Your task to perform on an android device: turn on javascript in the chrome app Image 0: 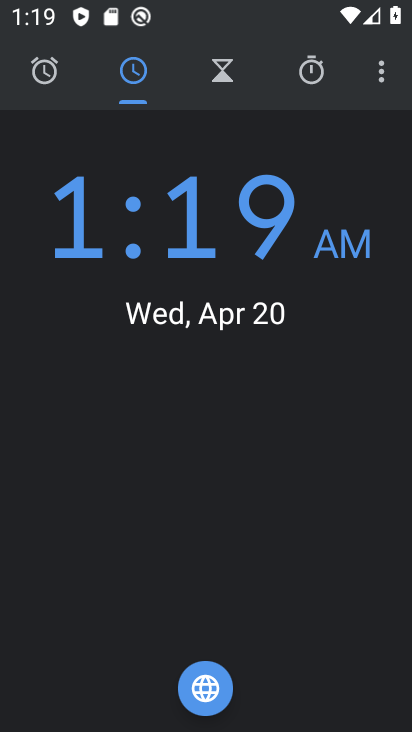
Step 0: press home button
Your task to perform on an android device: turn on javascript in the chrome app Image 1: 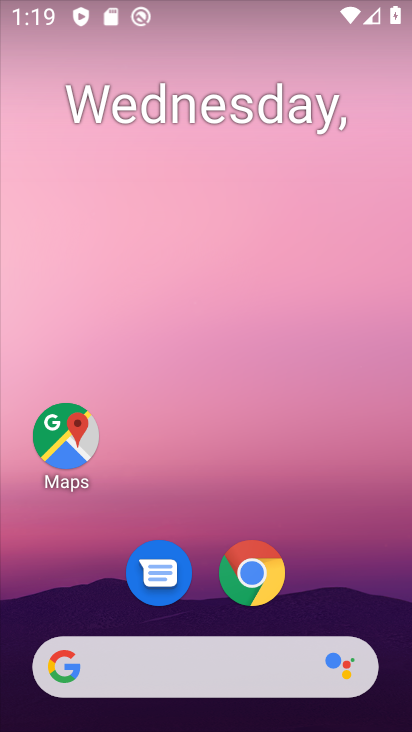
Step 1: drag from (210, 498) to (227, 119)
Your task to perform on an android device: turn on javascript in the chrome app Image 2: 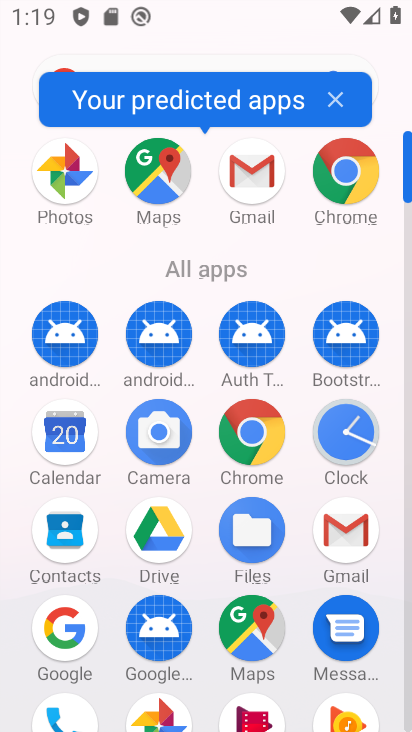
Step 2: click (348, 176)
Your task to perform on an android device: turn on javascript in the chrome app Image 3: 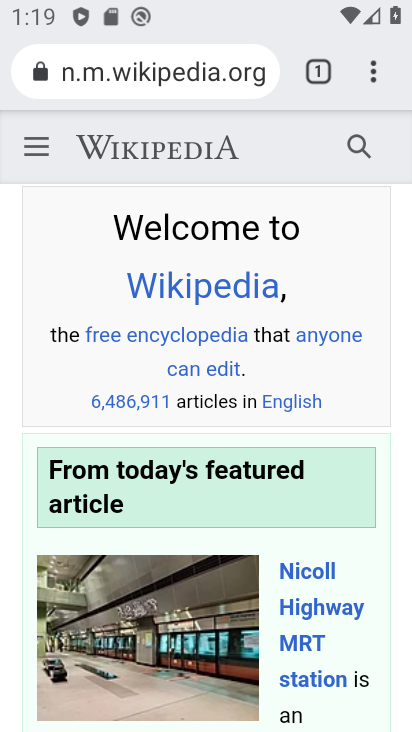
Step 3: click (366, 66)
Your task to perform on an android device: turn on javascript in the chrome app Image 4: 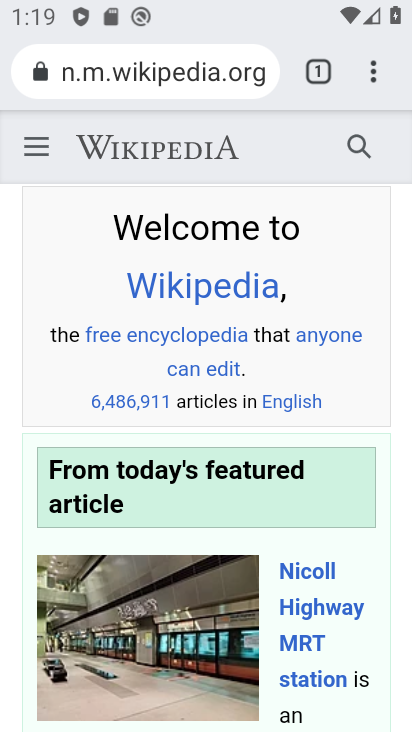
Step 4: click (371, 65)
Your task to perform on an android device: turn on javascript in the chrome app Image 5: 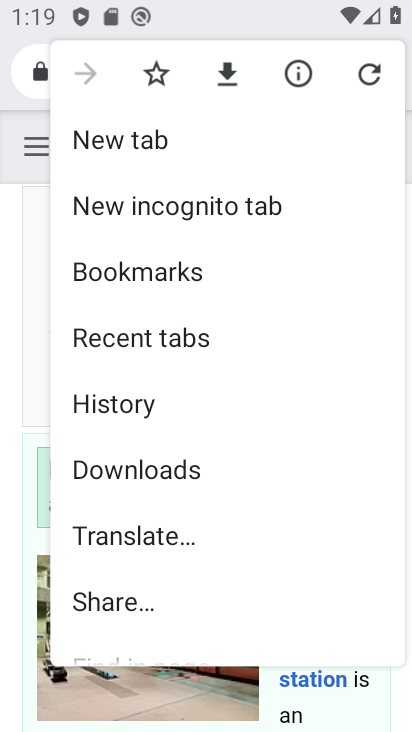
Step 5: drag from (209, 497) to (231, 187)
Your task to perform on an android device: turn on javascript in the chrome app Image 6: 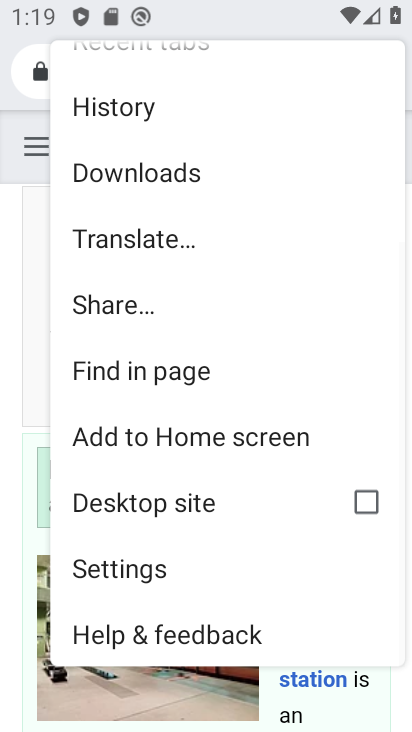
Step 6: click (122, 561)
Your task to perform on an android device: turn on javascript in the chrome app Image 7: 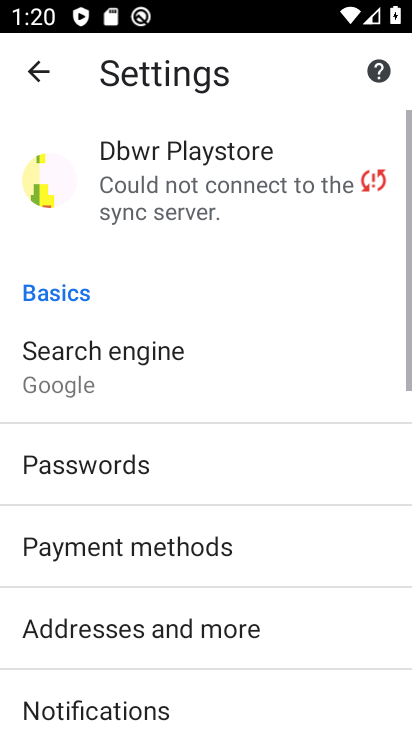
Step 7: drag from (267, 550) to (295, 218)
Your task to perform on an android device: turn on javascript in the chrome app Image 8: 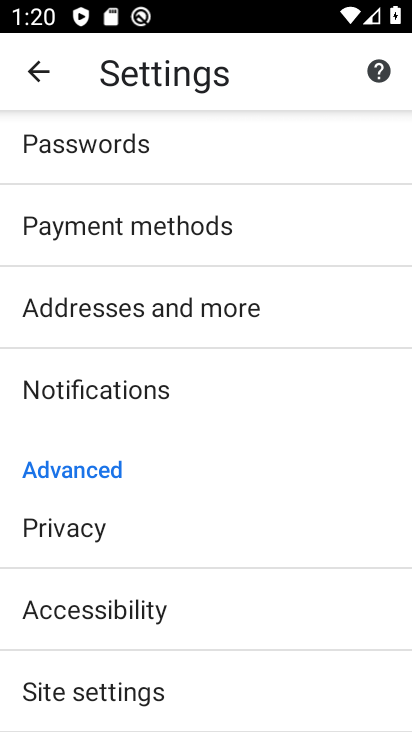
Step 8: click (109, 698)
Your task to perform on an android device: turn on javascript in the chrome app Image 9: 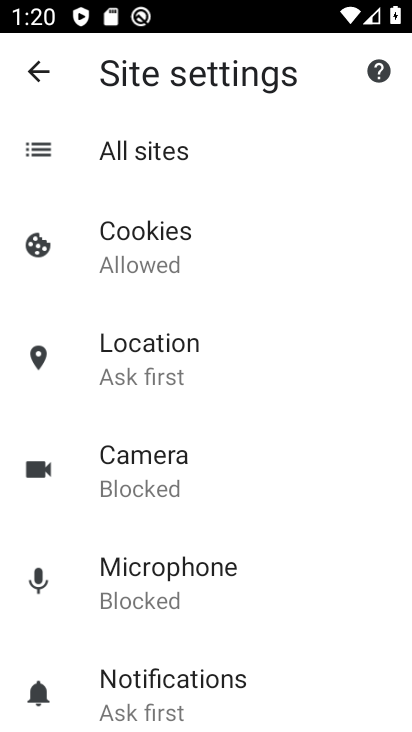
Step 9: drag from (223, 616) to (255, 369)
Your task to perform on an android device: turn on javascript in the chrome app Image 10: 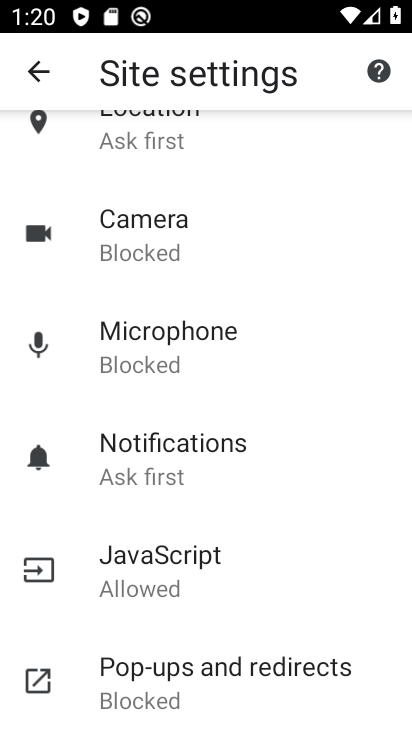
Step 10: click (177, 564)
Your task to perform on an android device: turn on javascript in the chrome app Image 11: 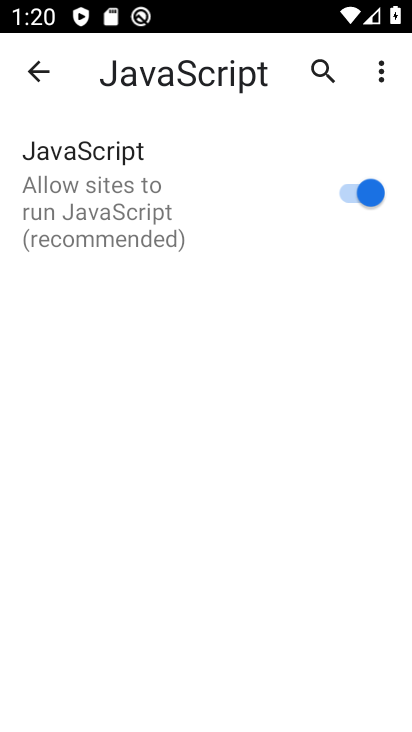
Step 11: task complete